Your task to perform on an android device: allow notifications from all sites in the chrome app Image 0: 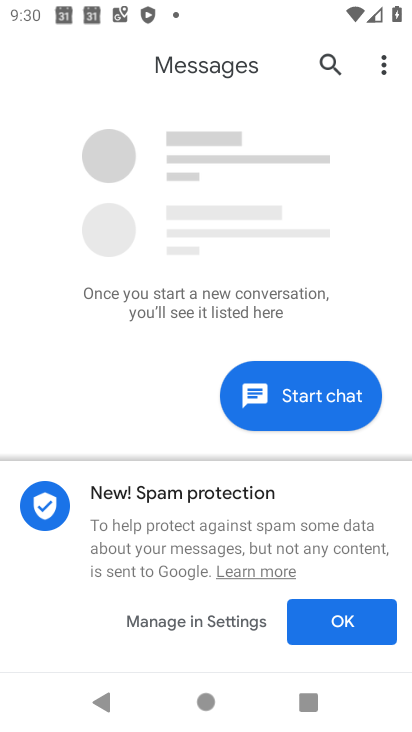
Step 0: press home button
Your task to perform on an android device: allow notifications from all sites in the chrome app Image 1: 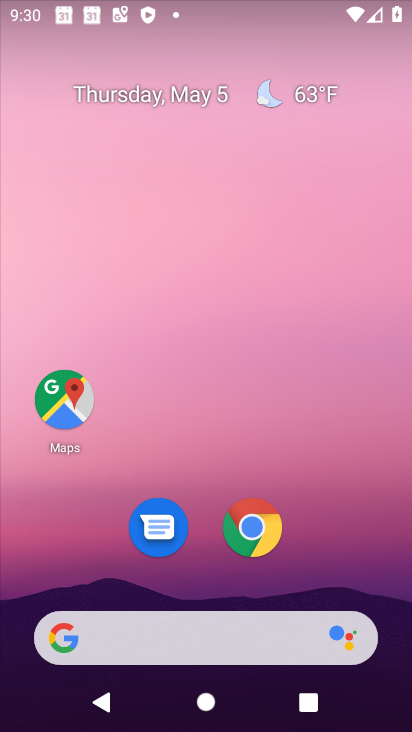
Step 1: click (271, 529)
Your task to perform on an android device: allow notifications from all sites in the chrome app Image 2: 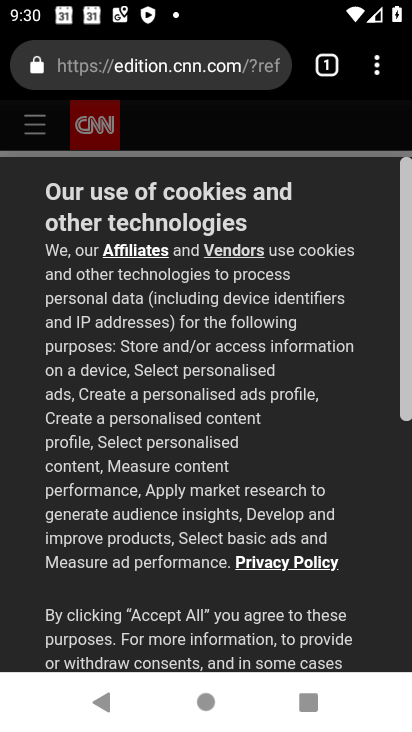
Step 2: click (379, 61)
Your task to perform on an android device: allow notifications from all sites in the chrome app Image 3: 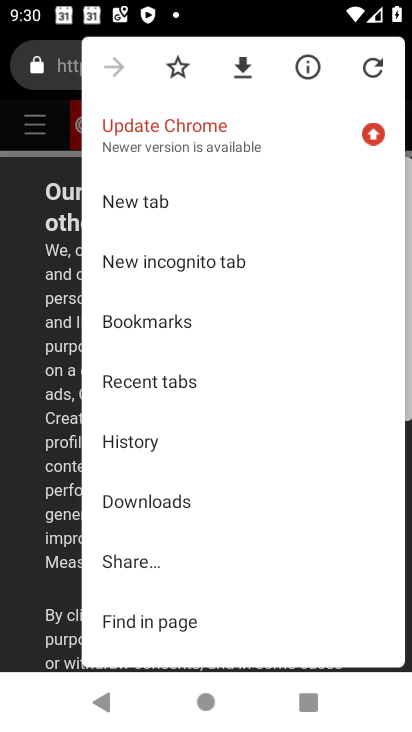
Step 3: drag from (300, 607) to (399, 11)
Your task to perform on an android device: allow notifications from all sites in the chrome app Image 4: 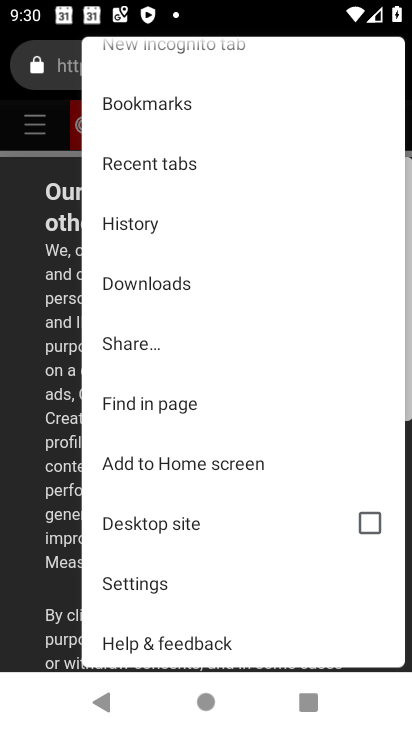
Step 4: click (129, 591)
Your task to perform on an android device: allow notifications from all sites in the chrome app Image 5: 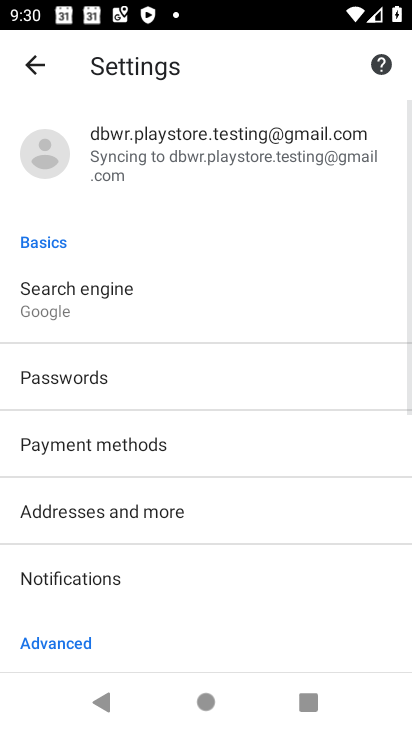
Step 5: click (107, 576)
Your task to perform on an android device: allow notifications from all sites in the chrome app Image 6: 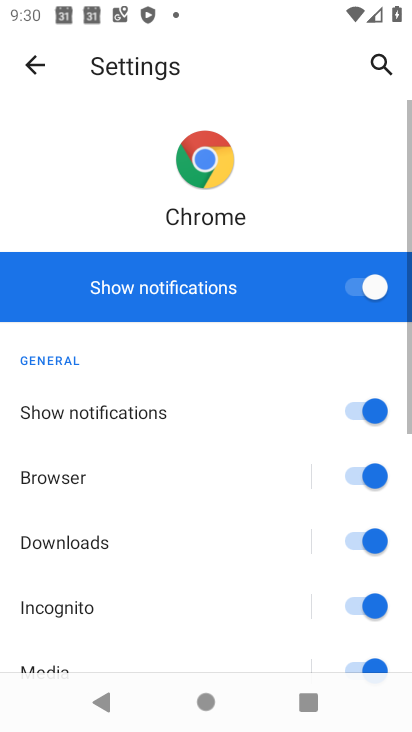
Step 6: task complete